Your task to perform on an android device: turn off priority inbox in the gmail app Image 0: 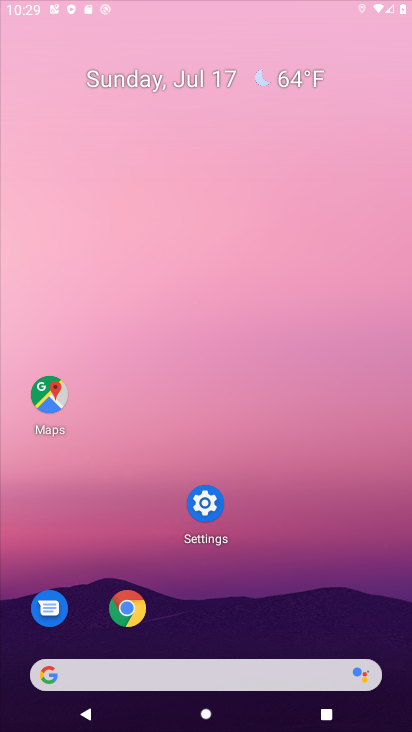
Step 0: click (213, 517)
Your task to perform on an android device: turn off priority inbox in the gmail app Image 1: 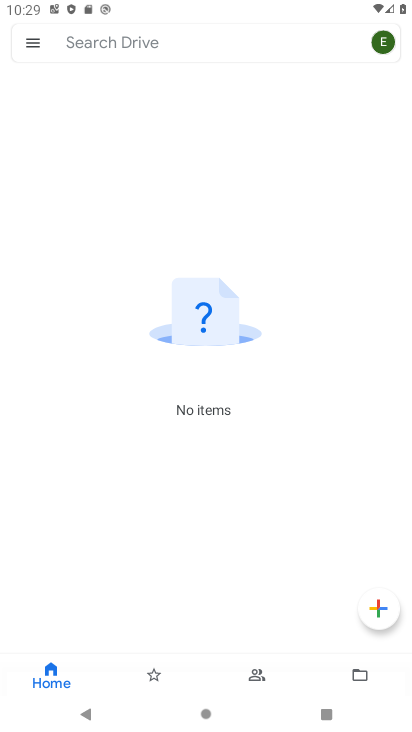
Step 1: press home button
Your task to perform on an android device: turn off priority inbox in the gmail app Image 2: 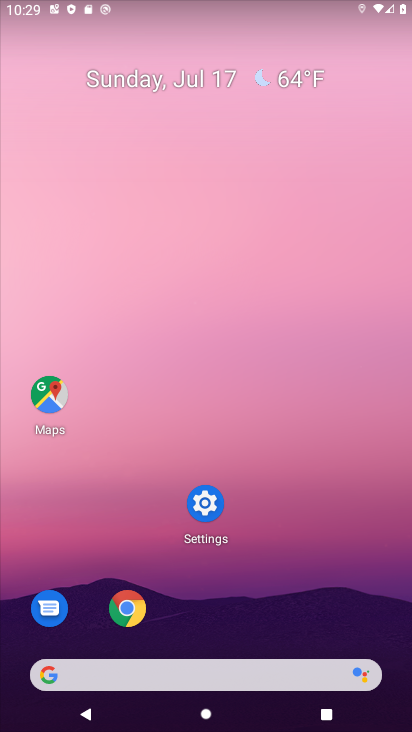
Step 2: drag from (369, 656) to (237, 156)
Your task to perform on an android device: turn off priority inbox in the gmail app Image 3: 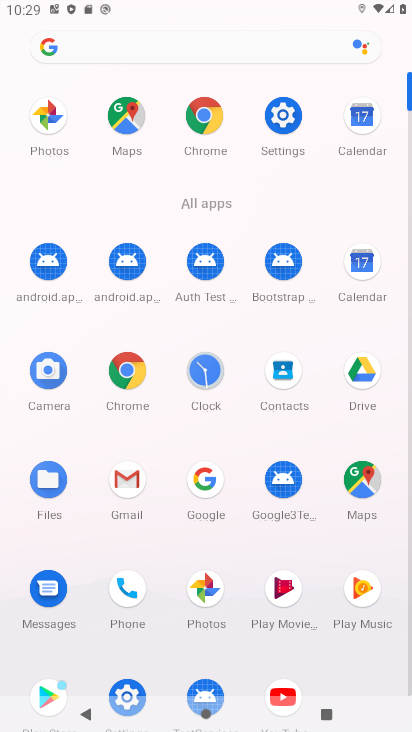
Step 3: click (122, 471)
Your task to perform on an android device: turn off priority inbox in the gmail app Image 4: 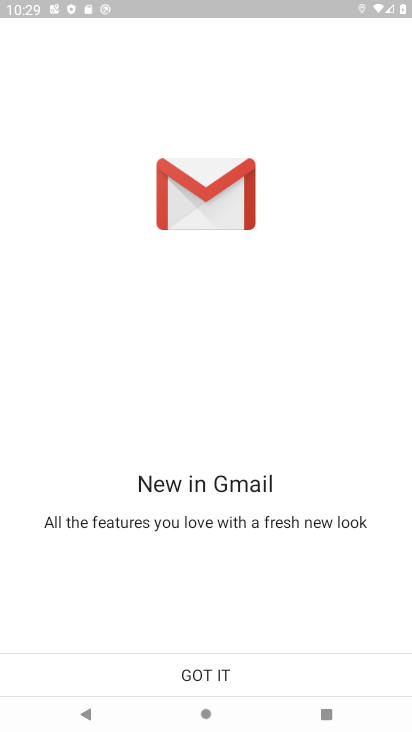
Step 4: click (211, 668)
Your task to perform on an android device: turn off priority inbox in the gmail app Image 5: 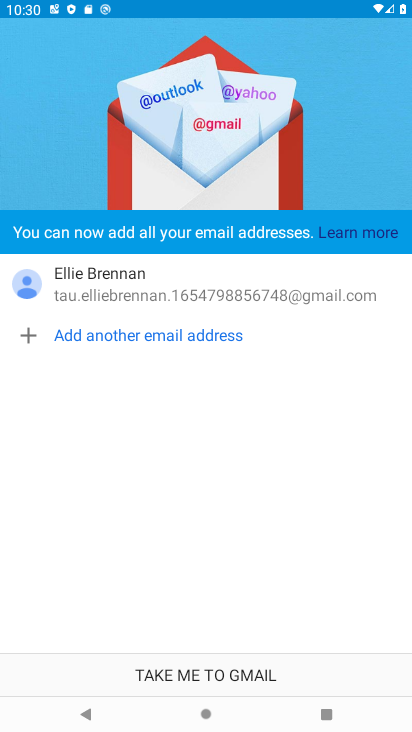
Step 5: click (247, 679)
Your task to perform on an android device: turn off priority inbox in the gmail app Image 6: 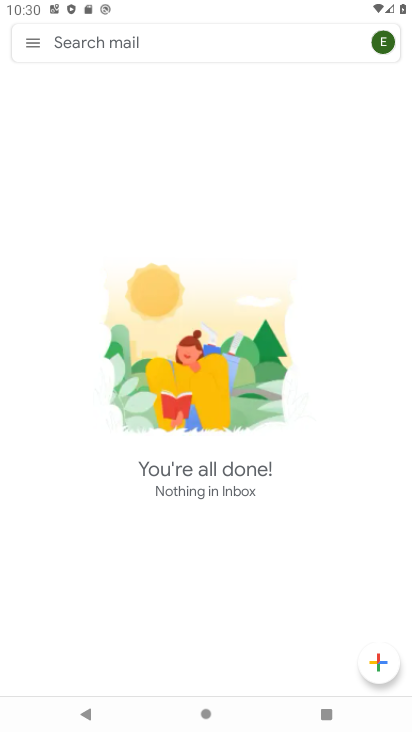
Step 6: click (28, 39)
Your task to perform on an android device: turn off priority inbox in the gmail app Image 7: 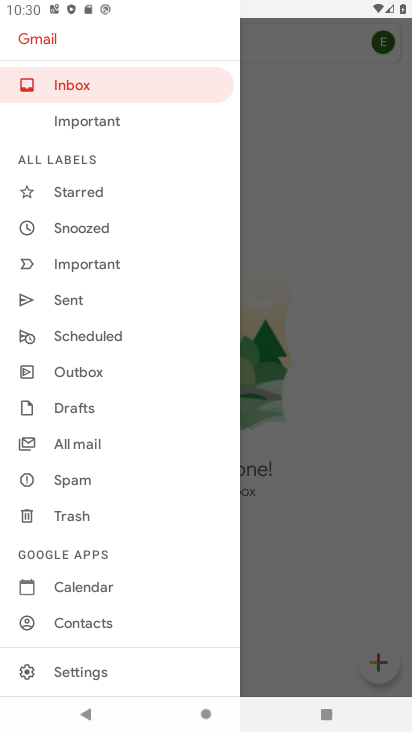
Step 7: click (60, 672)
Your task to perform on an android device: turn off priority inbox in the gmail app Image 8: 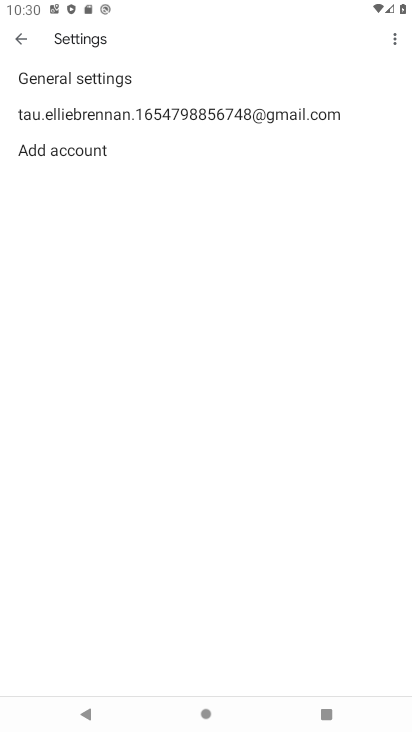
Step 8: click (162, 115)
Your task to perform on an android device: turn off priority inbox in the gmail app Image 9: 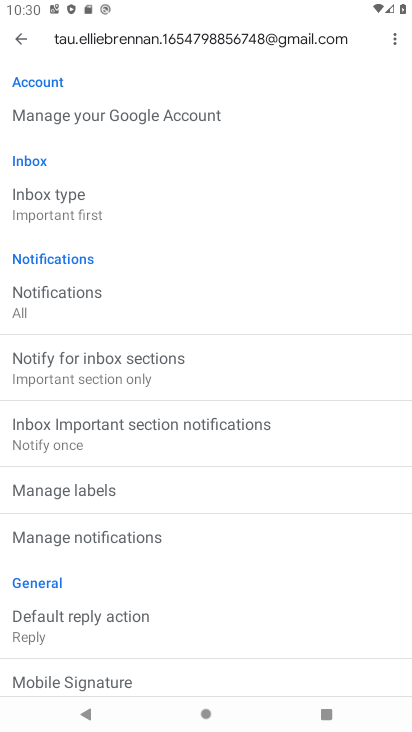
Step 9: click (45, 201)
Your task to perform on an android device: turn off priority inbox in the gmail app Image 10: 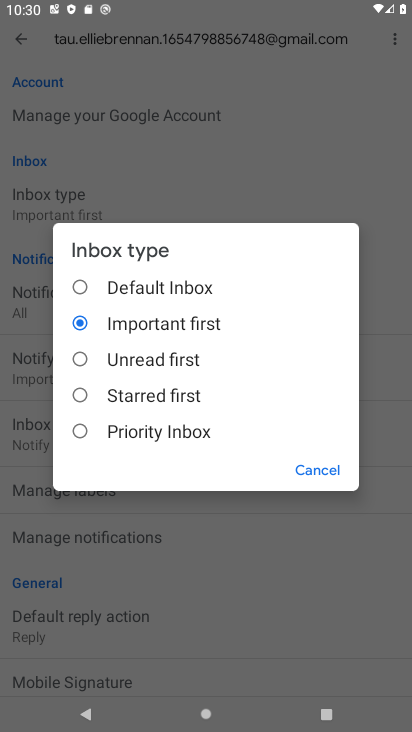
Step 10: task complete